Your task to perform on an android device: turn on sleep mode Image 0: 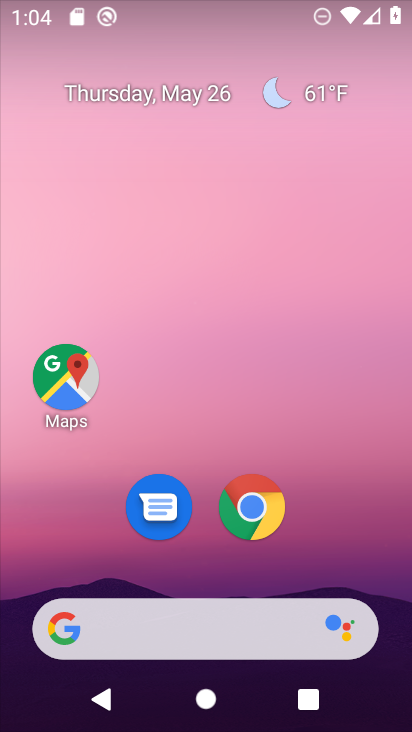
Step 0: drag from (386, 551) to (287, 64)
Your task to perform on an android device: turn on sleep mode Image 1: 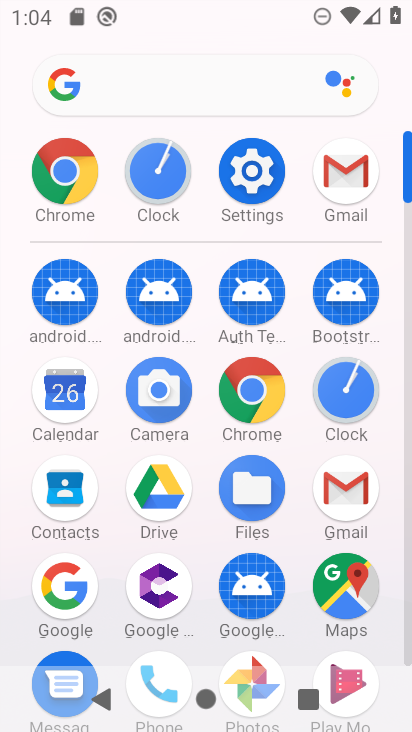
Step 1: click (245, 165)
Your task to perform on an android device: turn on sleep mode Image 2: 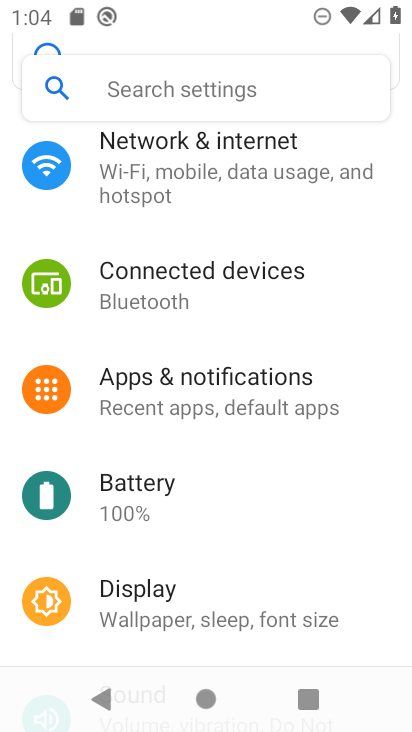
Step 2: drag from (275, 519) to (274, 316)
Your task to perform on an android device: turn on sleep mode Image 3: 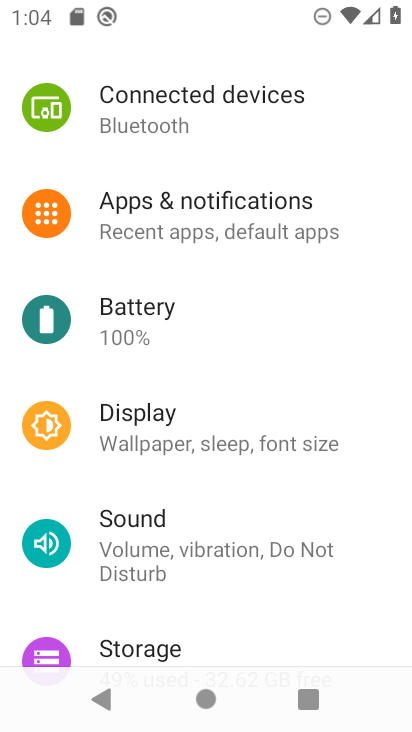
Step 3: click (274, 452)
Your task to perform on an android device: turn on sleep mode Image 4: 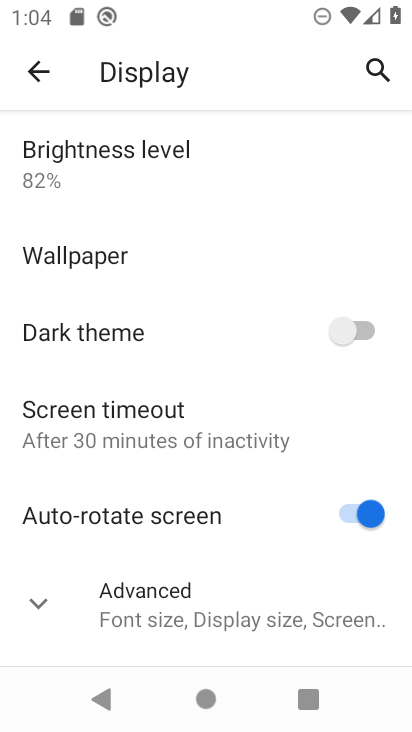
Step 4: drag from (193, 464) to (157, 236)
Your task to perform on an android device: turn on sleep mode Image 5: 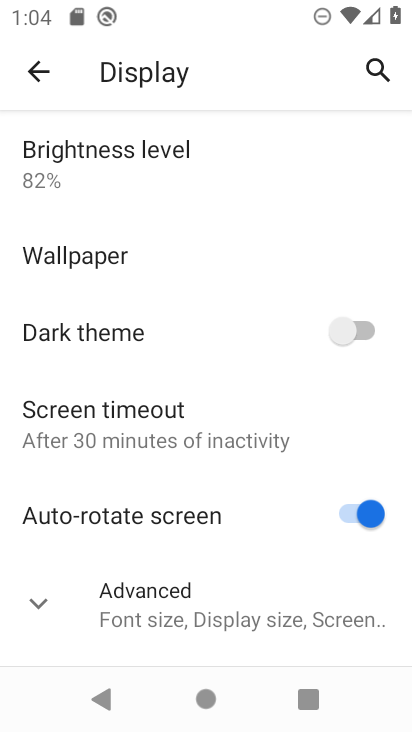
Step 5: click (179, 441)
Your task to perform on an android device: turn on sleep mode Image 6: 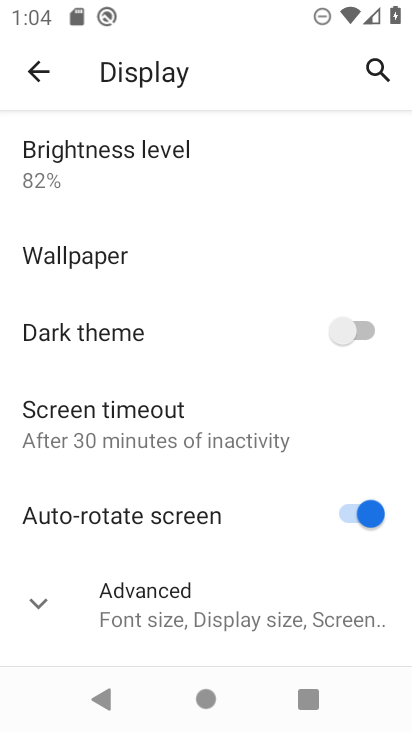
Step 6: click (179, 441)
Your task to perform on an android device: turn on sleep mode Image 7: 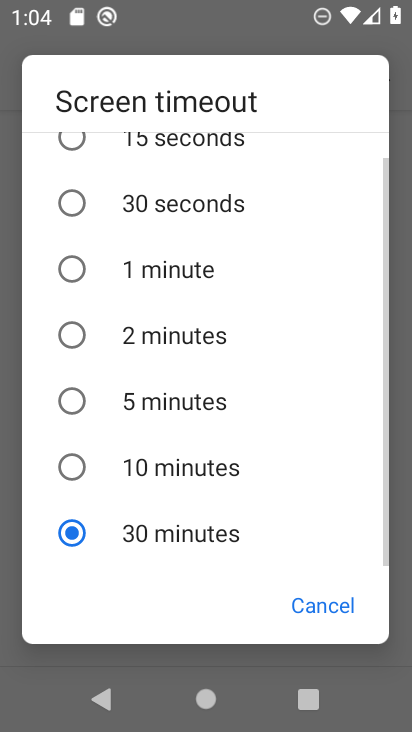
Step 7: task complete